Your task to perform on an android device: toggle airplane mode Image 0: 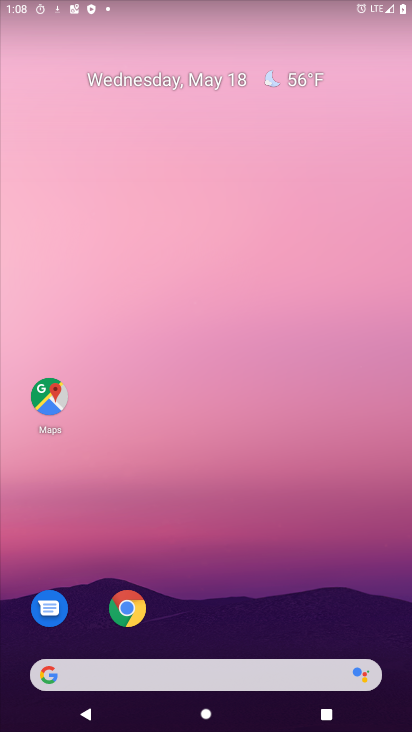
Step 0: drag from (273, 691) to (200, 121)
Your task to perform on an android device: toggle airplane mode Image 1: 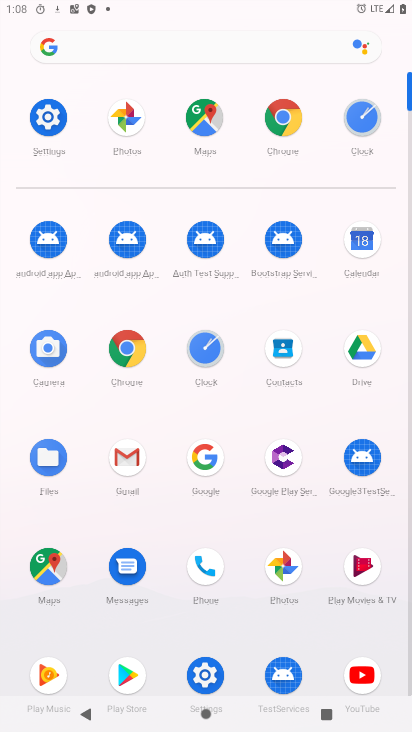
Step 1: click (56, 128)
Your task to perform on an android device: toggle airplane mode Image 2: 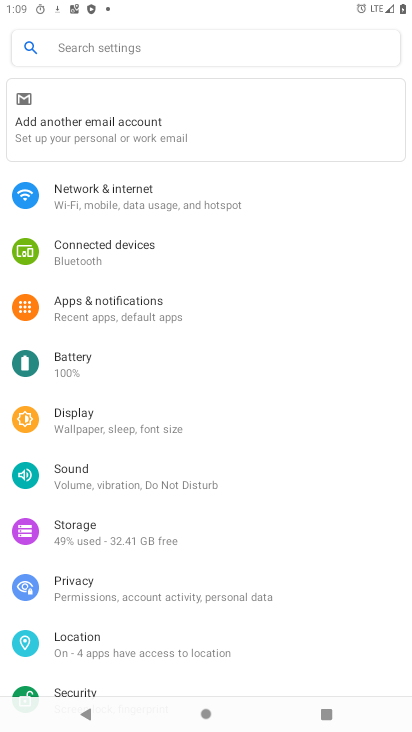
Step 2: click (121, 195)
Your task to perform on an android device: toggle airplane mode Image 3: 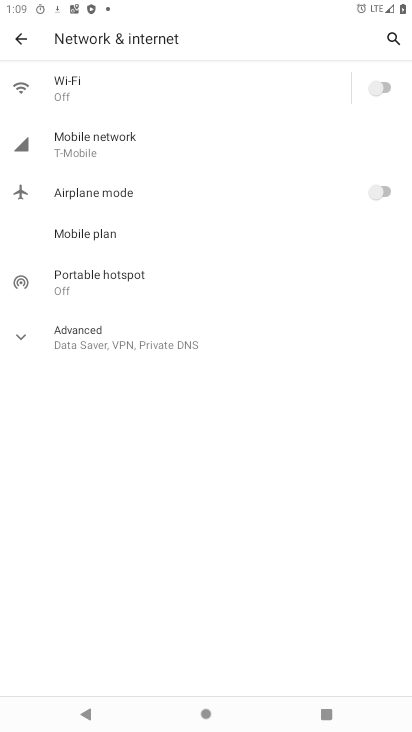
Step 3: task complete